Your task to perform on an android device: turn off notifications in google photos Image 0: 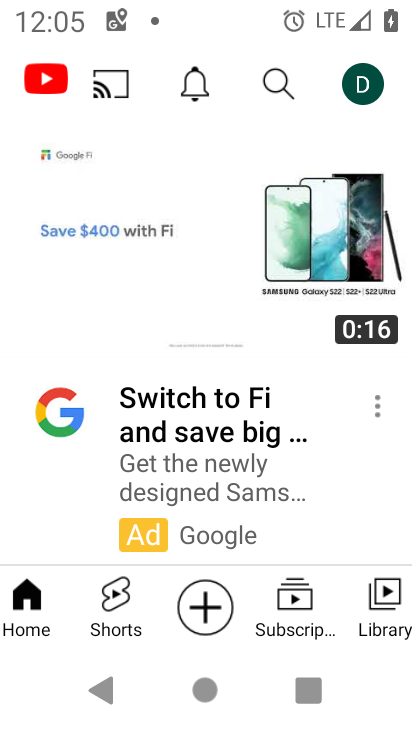
Step 0: drag from (257, 526) to (194, 0)
Your task to perform on an android device: turn off notifications in google photos Image 1: 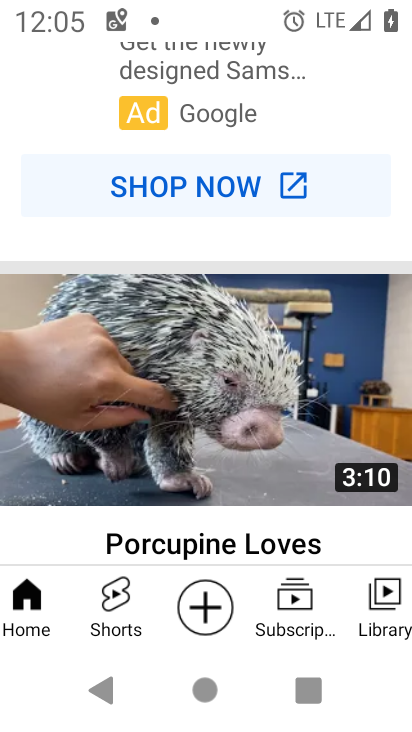
Step 1: drag from (229, 427) to (308, 195)
Your task to perform on an android device: turn off notifications in google photos Image 2: 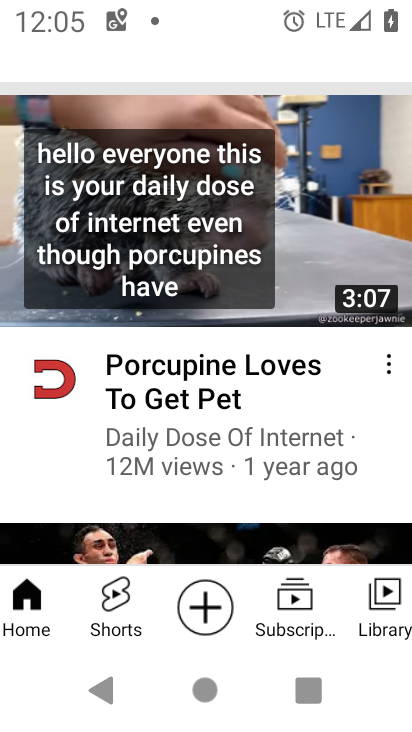
Step 2: drag from (303, 403) to (324, 303)
Your task to perform on an android device: turn off notifications in google photos Image 3: 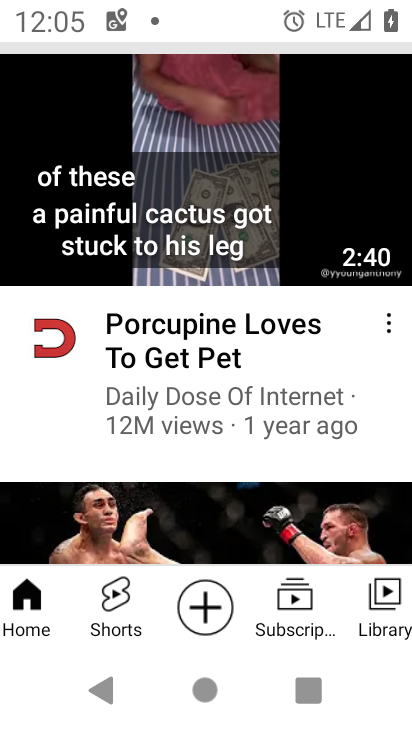
Step 3: press home button
Your task to perform on an android device: turn off notifications in google photos Image 4: 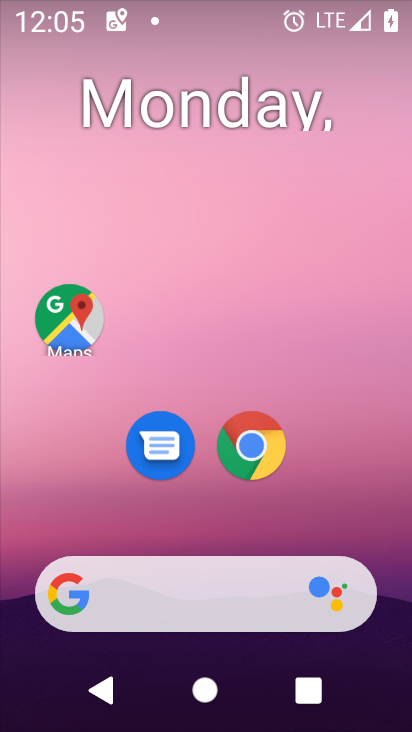
Step 4: drag from (219, 520) to (288, 155)
Your task to perform on an android device: turn off notifications in google photos Image 5: 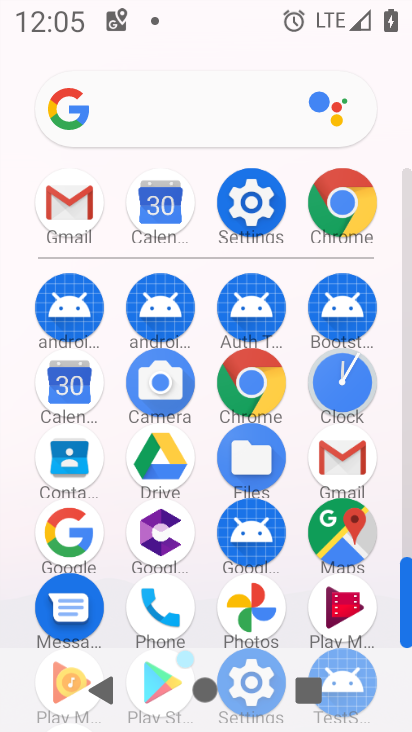
Step 5: click (256, 605)
Your task to perform on an android device: turn off notifications in google photos Image 6: 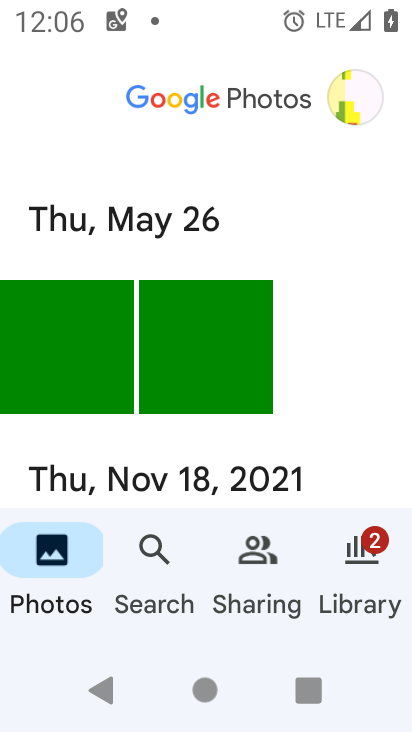
Step 6: click (90, 344)
Your task to perform on an android device: turn off notifications in google photos Image 7: 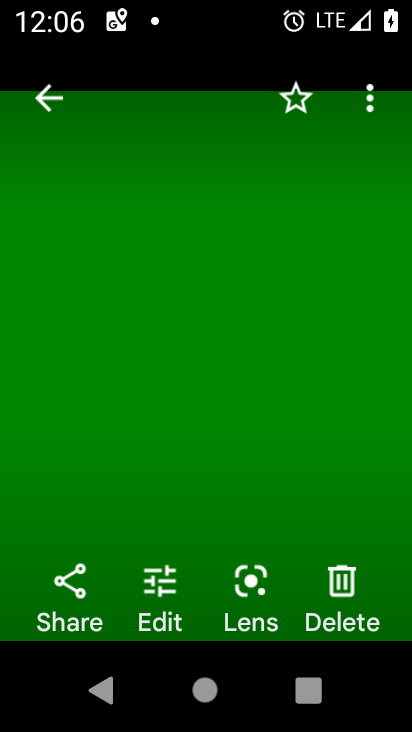
Step 7: click (59, 94)
Your task to perform on an android device: turn off notifications in google photos Image 8: 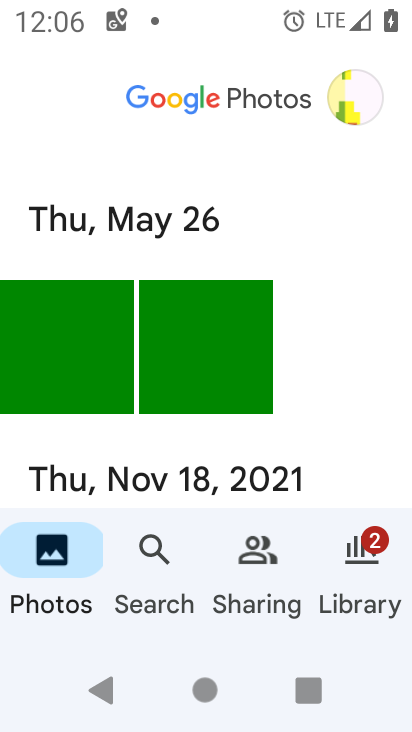
Step 8: click (358, 89)
Your task to perform on an android device: turn off notifications in google photos Image 9: 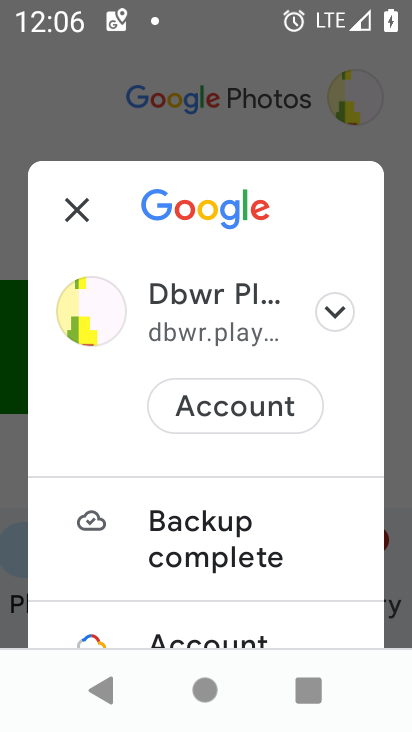
Step 9: drag from (223, 516) to (294, 61)
Your task to perform on an android device: turn off notifications in google photos Image 10: 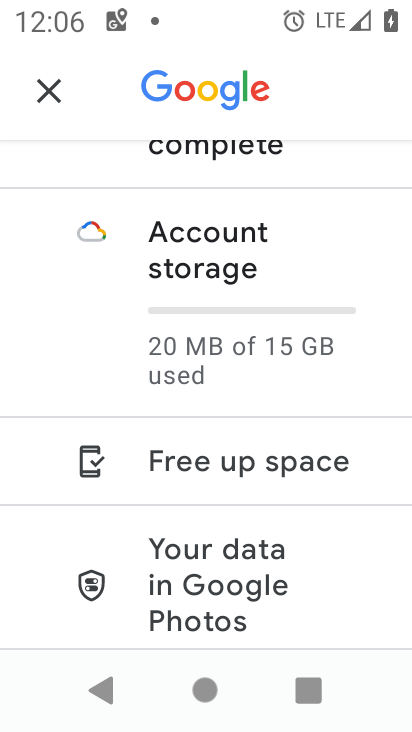
Step 10: drag from (232, 494) to (303, 142)
Your task to perform on an android device: turn off notifications in google photos Image 11: 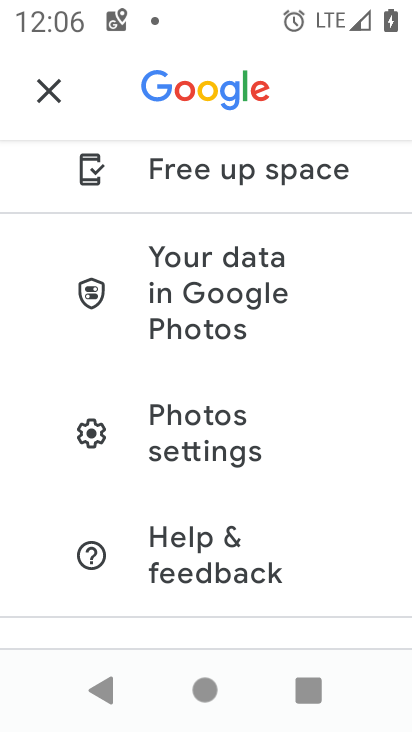
Step 11: click (214, 432)
Your task to perform on an android device: turn off notifications in google photos Image 12: 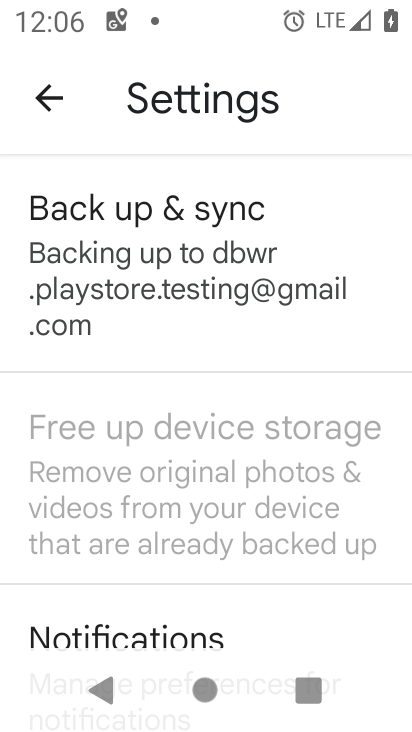
Step 12: drag from (157, 496) to (345, 172)
Your task to perform on an android device: turn off notifications in google photos Image 13: 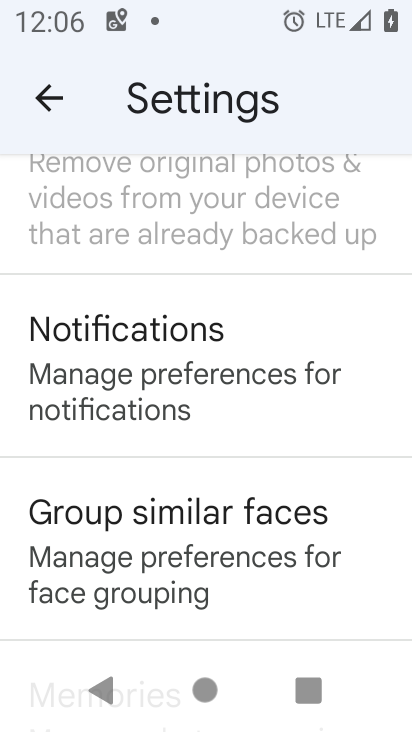
Step 13: click (208, 380)
Your task to perform on an android device: turn off notifications in google photos Image 14: 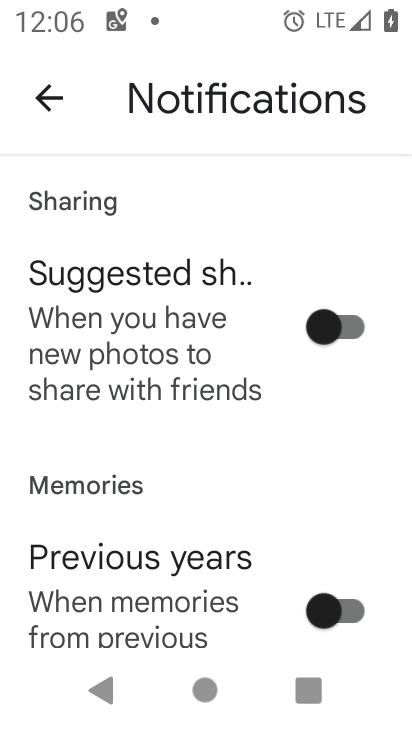
Step 14: drag from (151, 565) to (214, 241)
Your task to perform on an android device: turn off notifications in google photos Image 15: 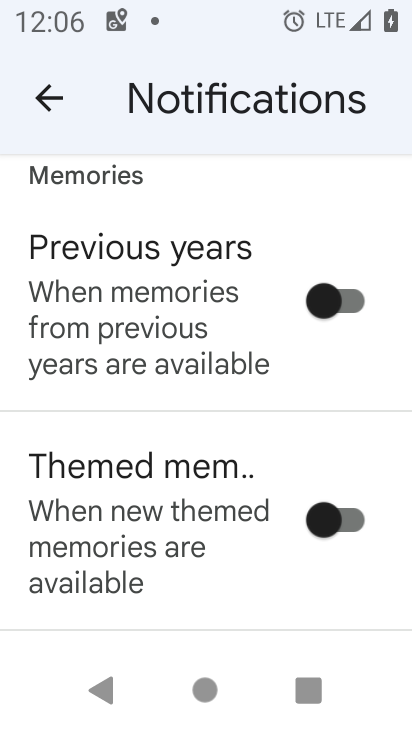
Step 15: drag from (213, 462) to (270, 226)
Your task to perform on an android device: turn off notifications in google photos Image 16: 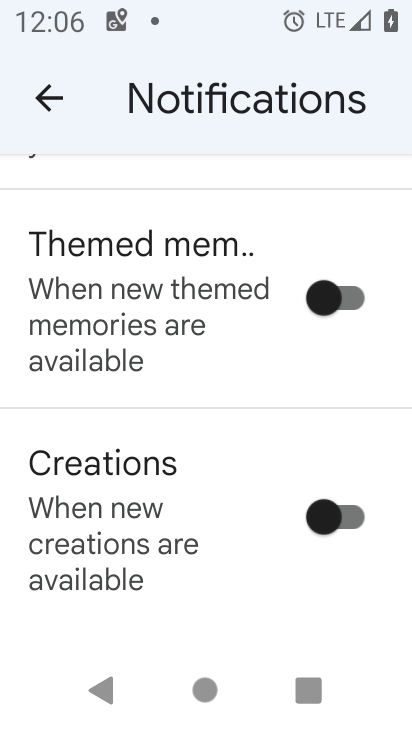
Step 16: drag from (244, 420) to (352, 58)
Your task to perform on an android device: turn off notifications in google photos Image 17: 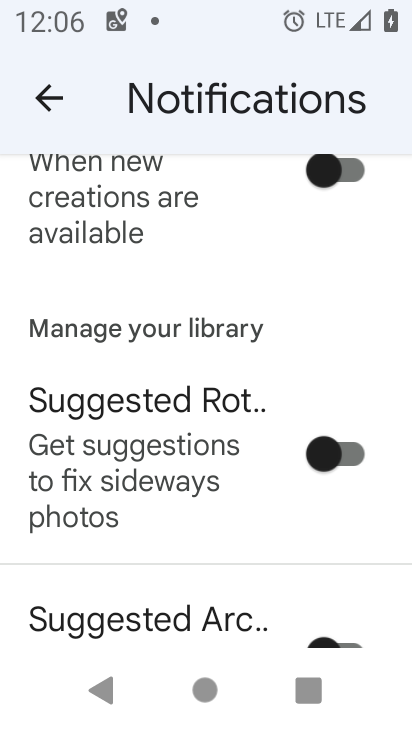
Step 17: drag from (250, 474) to (314, 128)
Your task to perform on an android device: turn off notifications in google photos Image 18: 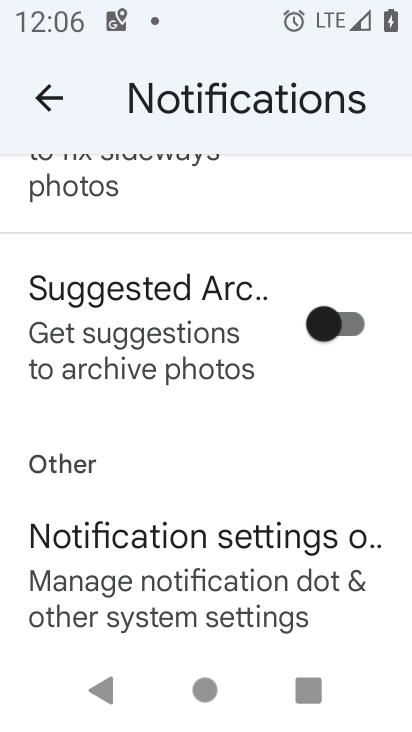
Step 18: drag from (273, 457) to (324, 260)
Your task to perform on an android device: turn off notifications in google photos Image 19: 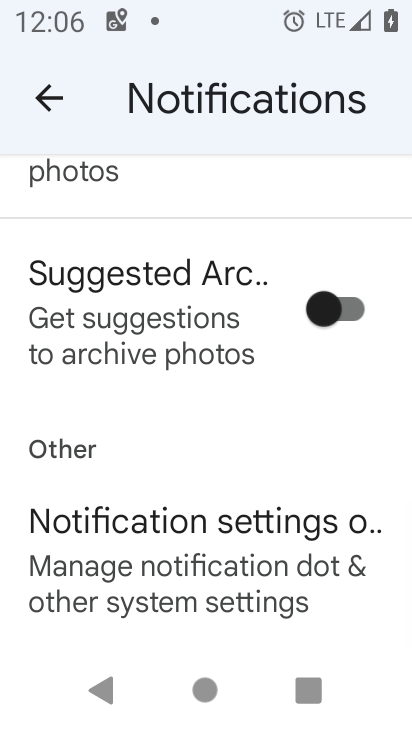
Step 19: click (249, 534)
Your task to perform on an android device: turn off notifications in google photos Image 20: 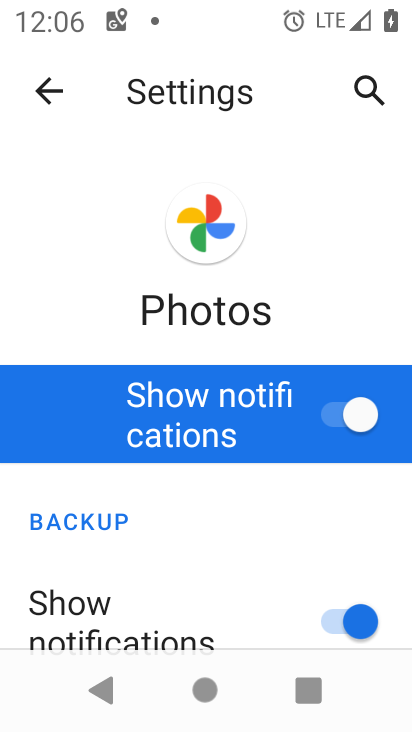
Step 20: drag from (270, 605) to (284, 427)
Your task to perform on an android device: turn off notifications in google photos Image 21: 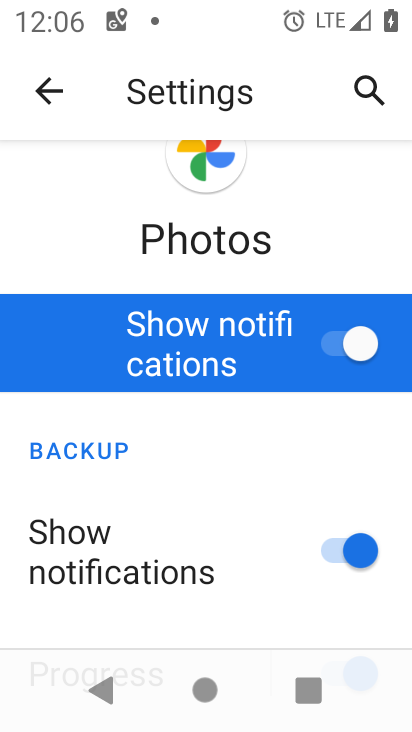
Step 21: click (350, 331)
Your task to perform on an android device: turn off notifications in google photos Image 22: 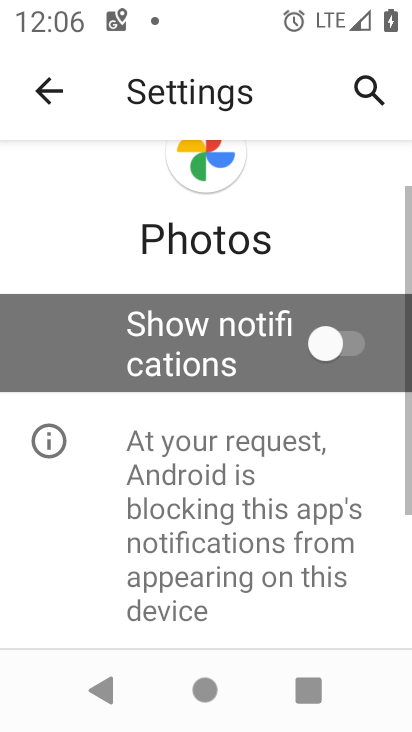
Step 22: task complete